Your task to perform on an android device: delete the emails in spam in the gmail app Image 0: 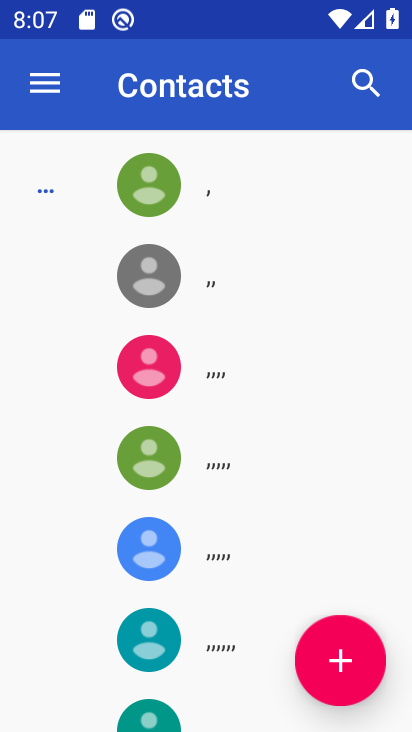
Step 0: press home button
Your task to perform on an android device: delete the emails in spam in the gmail app Image 1: 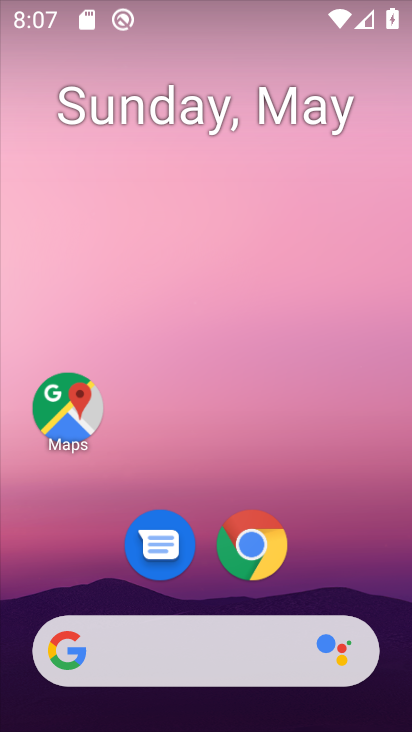
Step 1: drag from (93, 594) to (190, 209)
Your task to perform on an android device: delete the emails in spam in the gmail app Image 2: 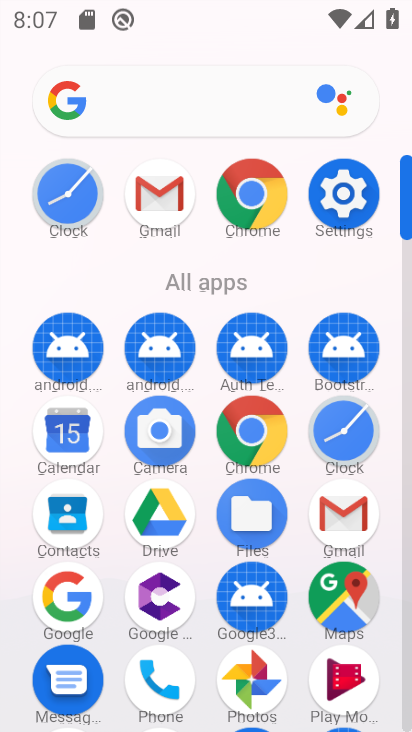
Step 2: click (354, 498)
Your task to perform on an android device: delete the emails in spam in the gmail app Image 3: 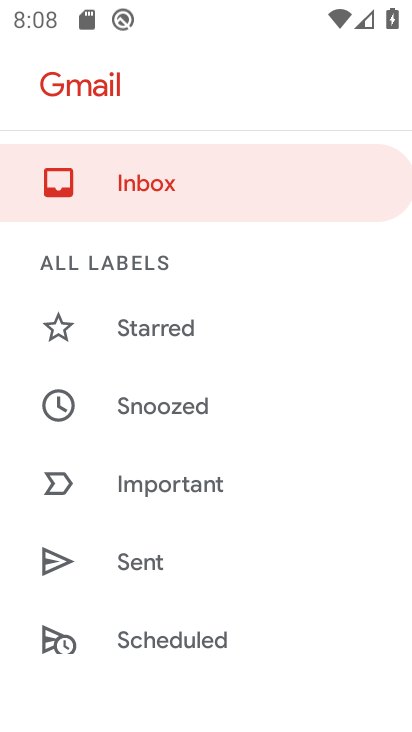
Step 3: drag from (200, 610) to (288, 271)
Your task to perform on an android device: delete the emails in spam in the gmail app Image 4: 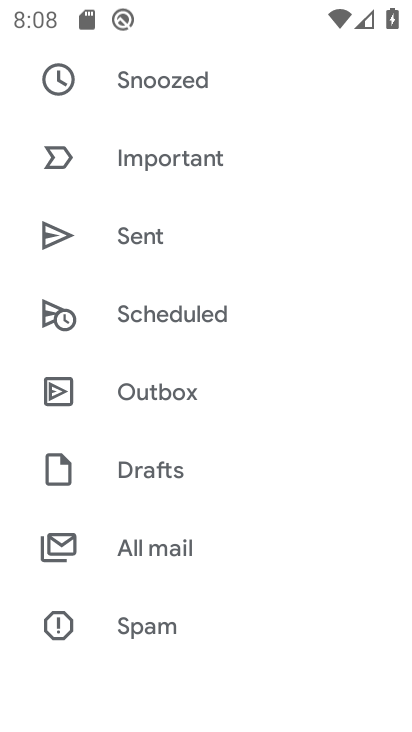
Step 4: drag from (201, 633) to (256, 363)
Your task to perform on an android device: delete the emails in spam in the gmail app Image 5: 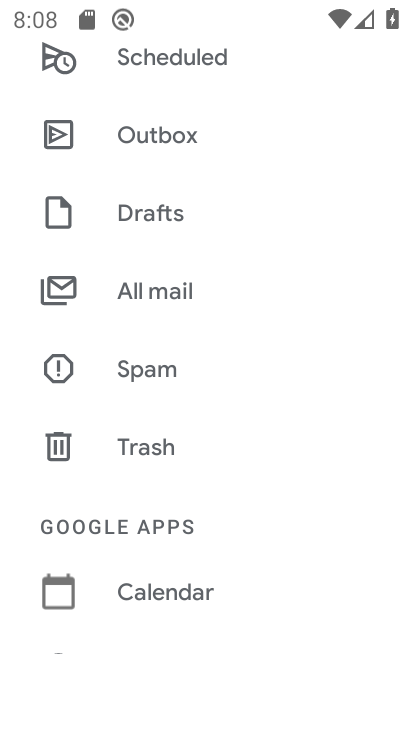
Step 5: click (155, 385)
Your task to perform on an android device: delete the emails in spam in the gmail app Image 6: 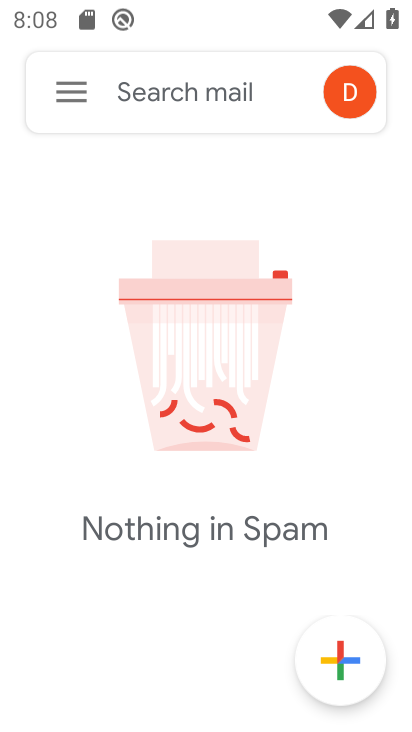
Step 6: task complete